Your task to perform on an android device: change text size in settings app Image 0: 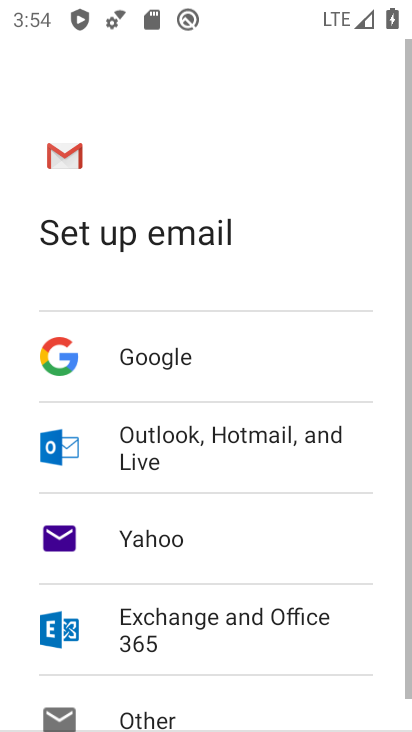
Step 0: press home button
Your task to perform on an android device: change text size in settings app Image 1: 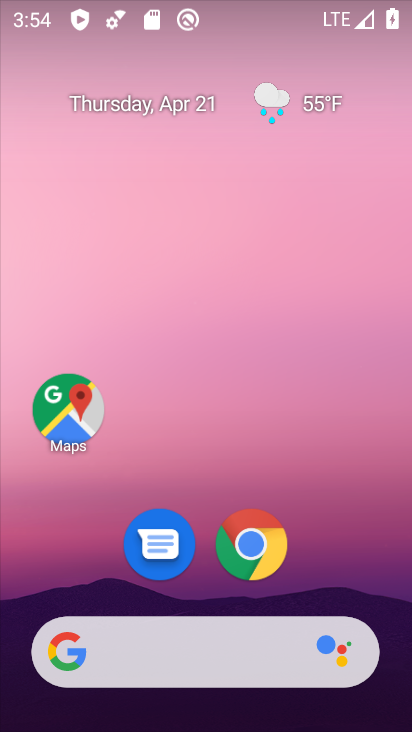
Step 1: drag from (161, 630) to (179, 130)
Your task to perform on an android device: change text size in settings app Image 2: 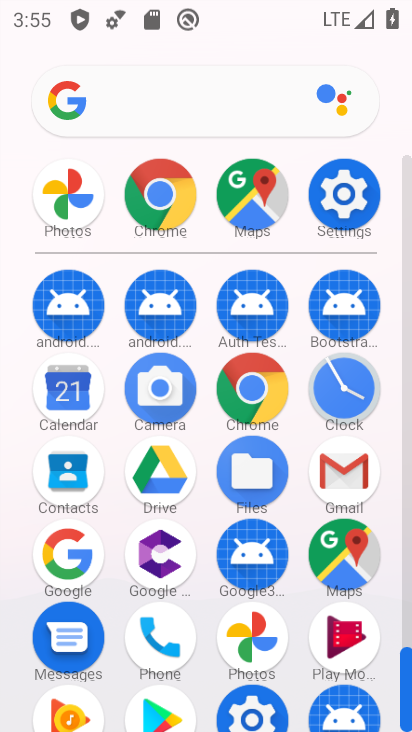
Step 2: click (371, 193)
Your task to perform on an android device: change text size in settings app Image 3: 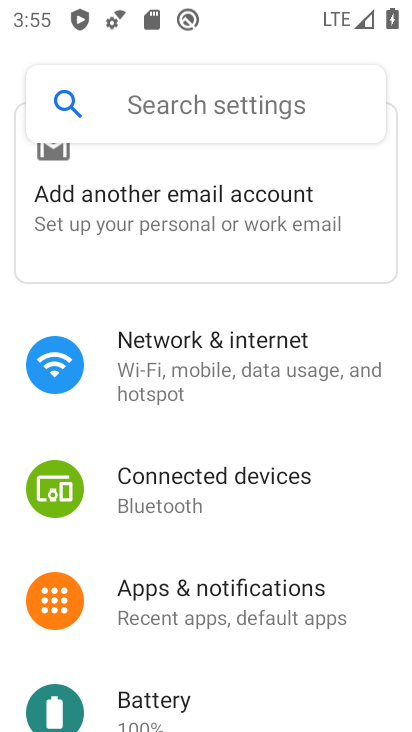
Step 3: drag from (221, 590) to (186, 25)
Your task to perform on an android device: change text size in settings app Image 4: 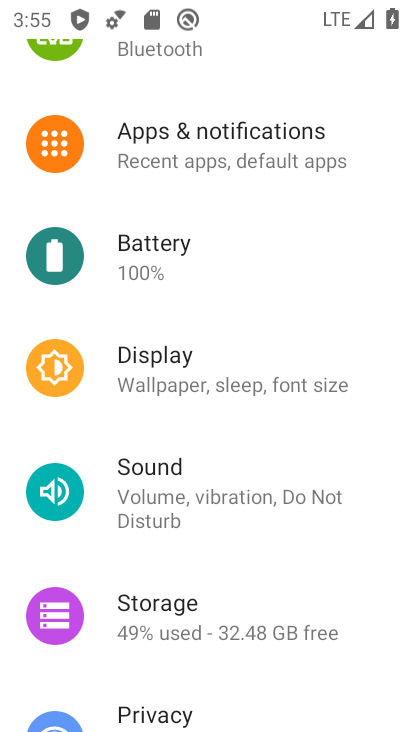
Step 4: click (194, 351)
Your task to perform on an android device: change text size in settings app Image 5: 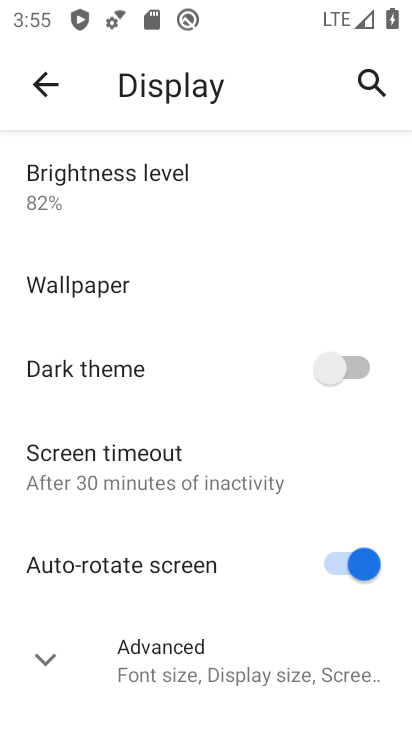
Step 5: click (185, 654)
Your task to perform on an android device: change text size in settings app Image 6: 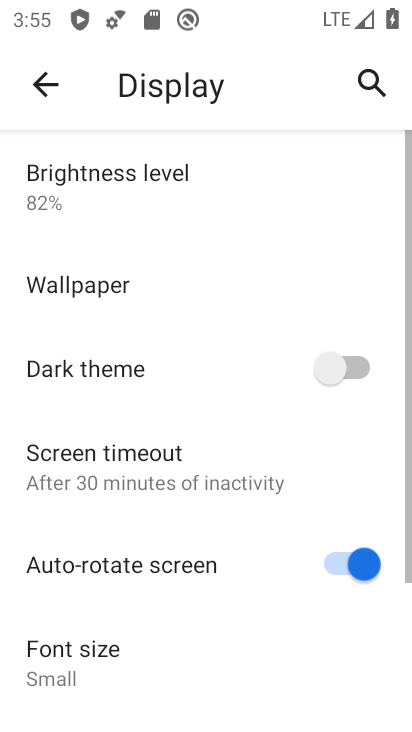
Step 6: drag from (236, 643) to (230, 230)
Your task to perform on an android device: change text size in settings app Image 7: 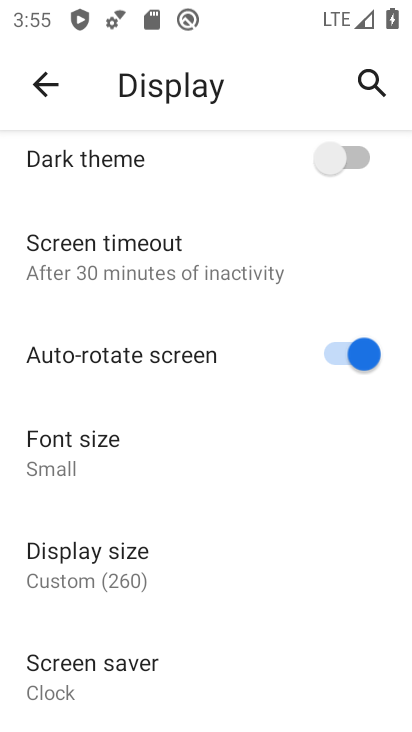
Step 7: click (103, 448)
Your task to perform on an android device: change text size in settings app Image 8: 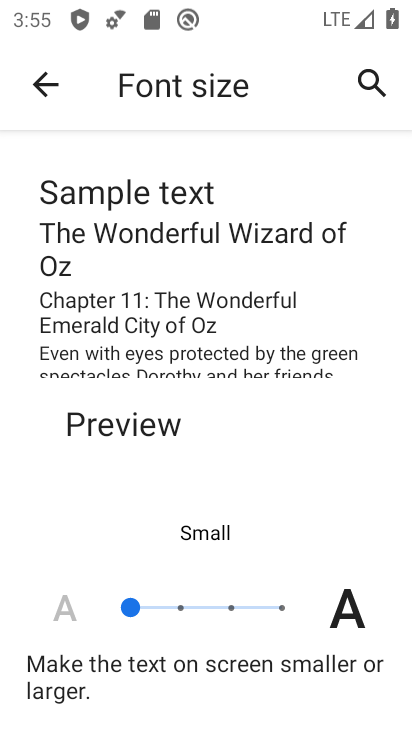
Step 8: click (175, 606)
Your task to perform on an android device: change text size in settings app Image 9: 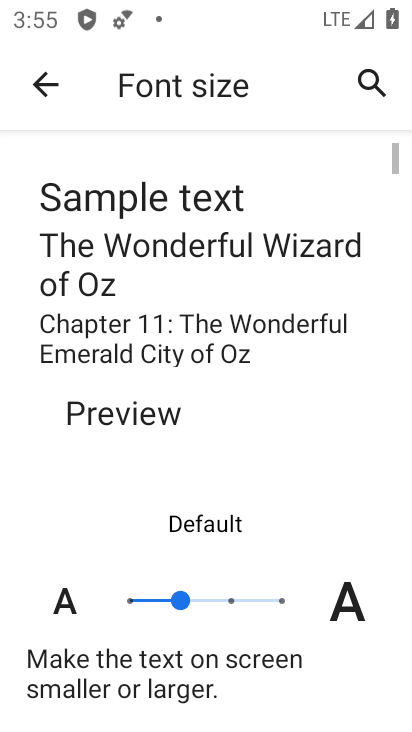
Step 9: task complete